Your task to perform on an android device: Open the web browser Image 0: 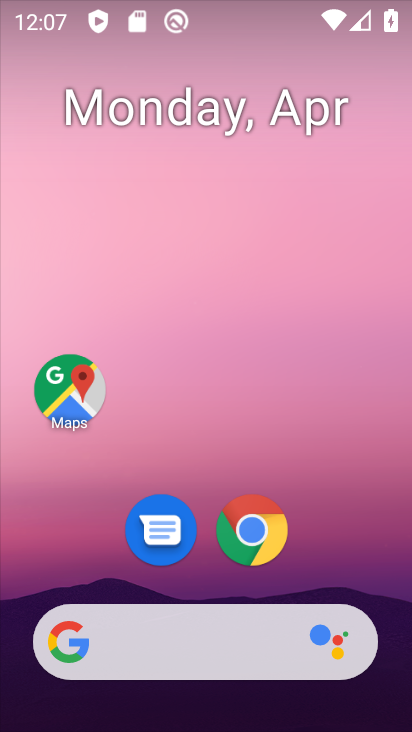
Step 0: click (259, 542)
Your task to perform on an android device: Open the web browser Image 1: 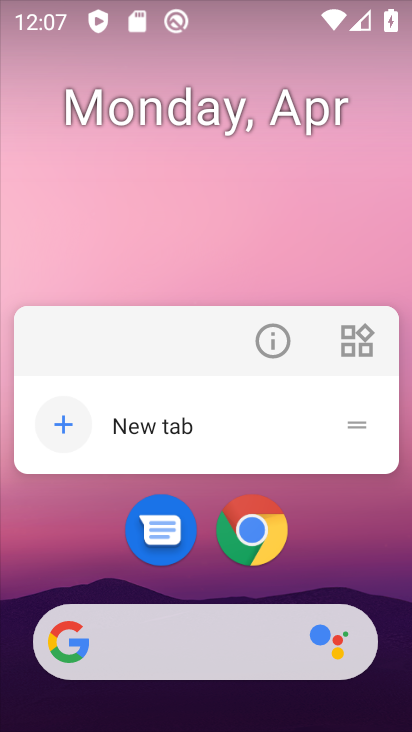
Step 1: click (264, 537)
Your task to perform on an android device: Open the web browser Image 2: 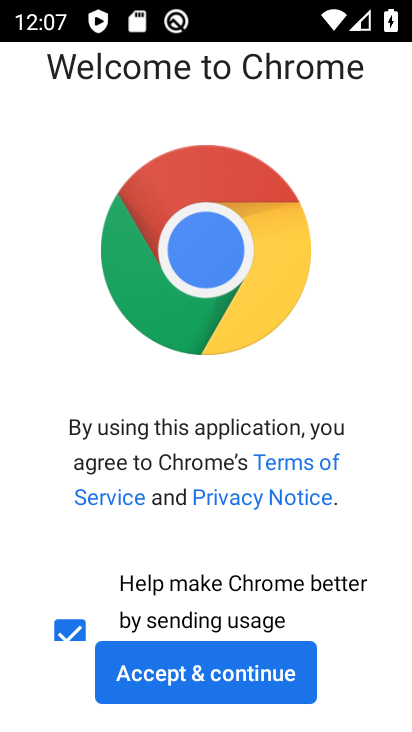
Step 2: click (241, 686)
Your task to perform on an android device: Open the web browser Image 3: 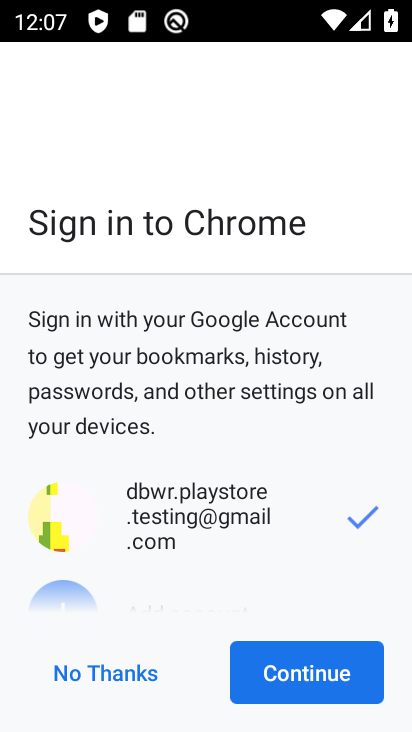
Step 3: click (311, 699)
Your task to perform on an android device: Open the web browser Image 4: 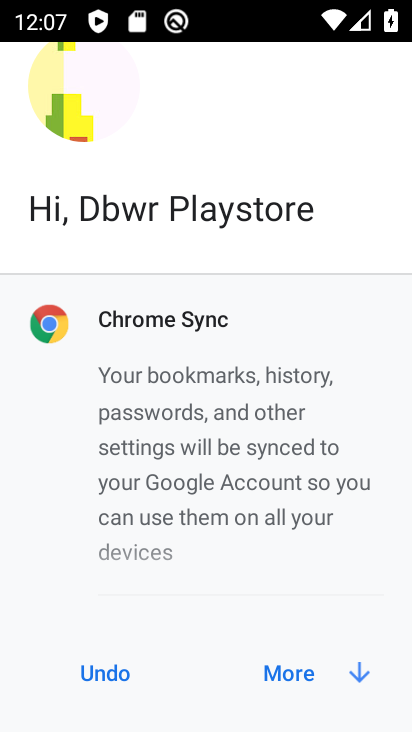
Step 4: click (290, 676)
Your task to perform on an android device: Open the web browser Image 5: 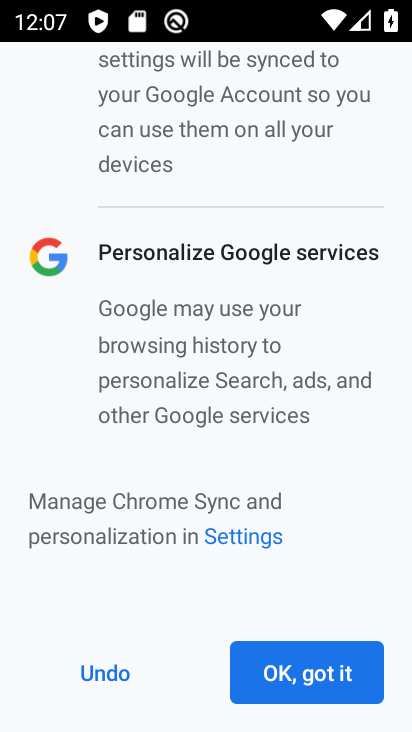
Step 5: click (300, 665)
Your task to perform on an android device: Open the web browser Image 6: 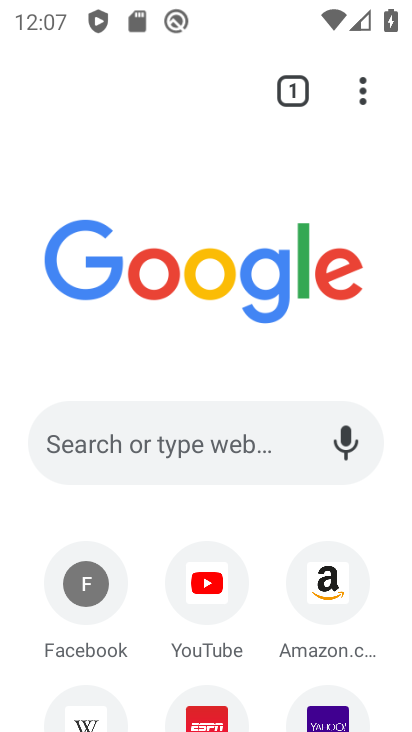
Step 6: task complete